Your task to perform on an android device: Find the nearest electronics store that's open today Image 0: 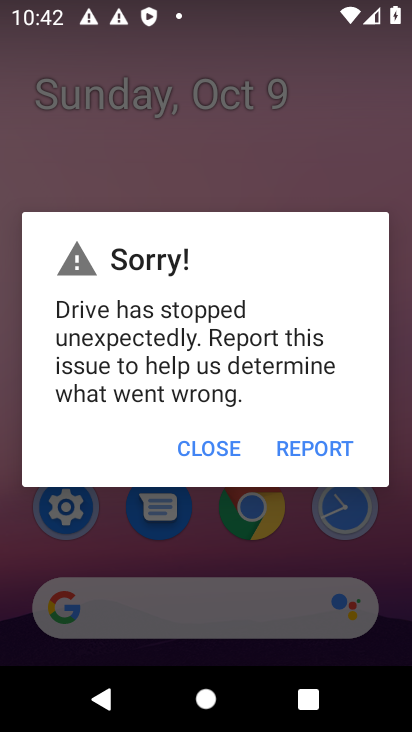
Step 0: click (221, 450)
Your task to perform on an android device: Find the nearest electronics store that's open today Image 1: 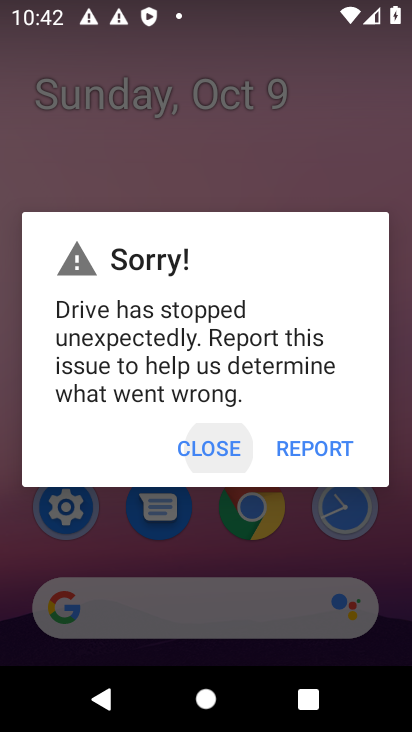
Step 1: press home button
Your task to perform on an android device: Find the nearest electronics store that's open today Image 2: 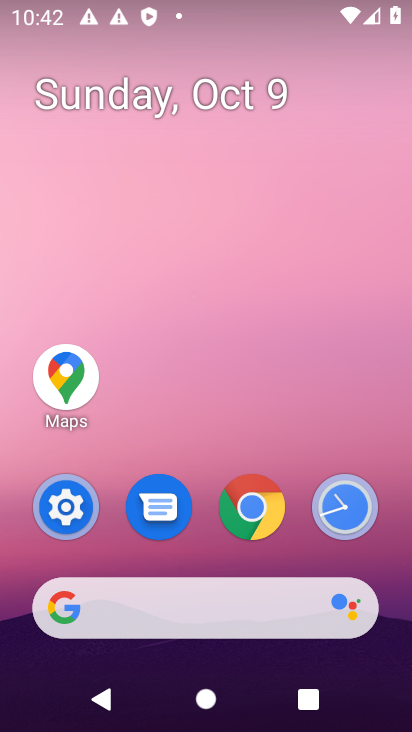
Step 2: click (217, 617)
Your task to perform on an android device: Find the nearest electronics store that's open today Image 3: 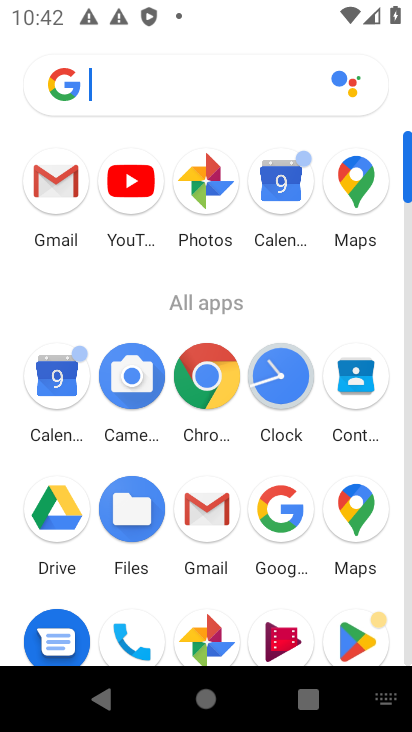
Step 3: click (295, 513)
Your task to perform on an android device: Find the nearest electronics store that's open today Image 4: 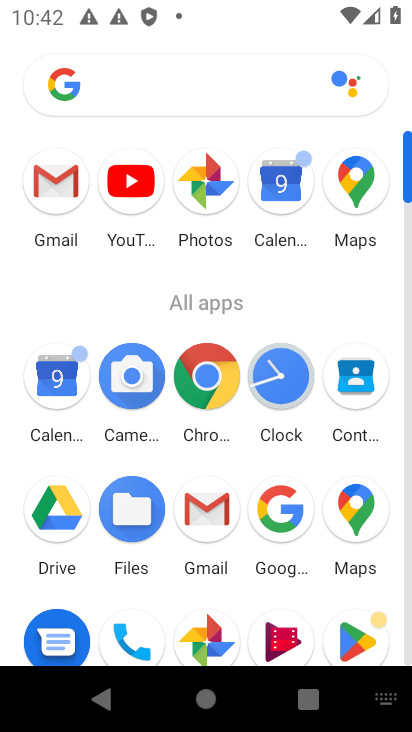
Step 4: click (280, 520)
Your task to perform on an android device: Find the nearest electronics store that's open today Image 5: 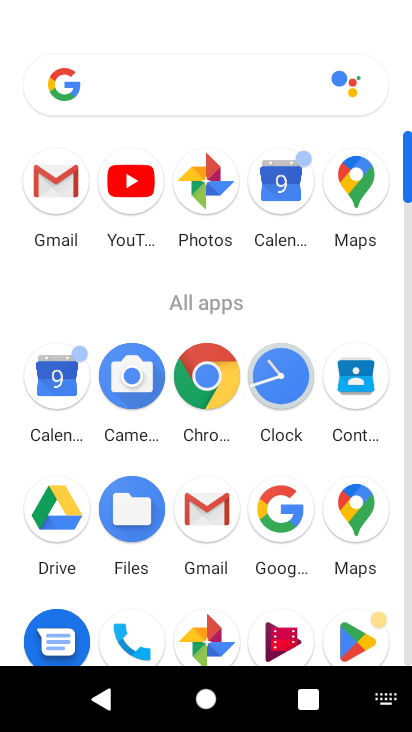
Step 5: click (290, 519)
Your task to perform on an android device: Find the nearest electronics store that's open today Image 6: 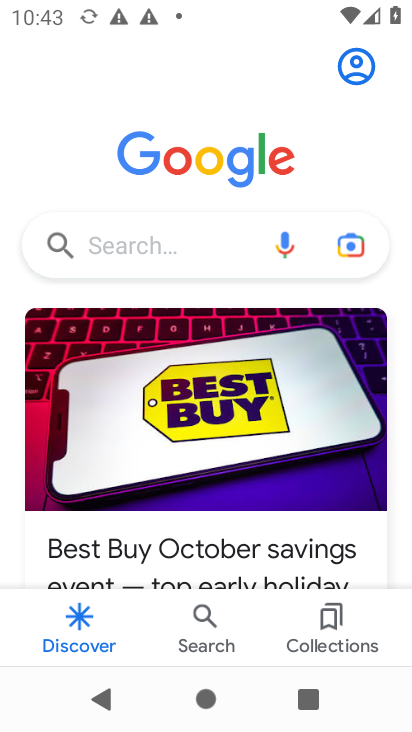
Step 6: click (142, 246)
Your task to perform on an android device: Find the nearest electronics store that's open today Image 7: 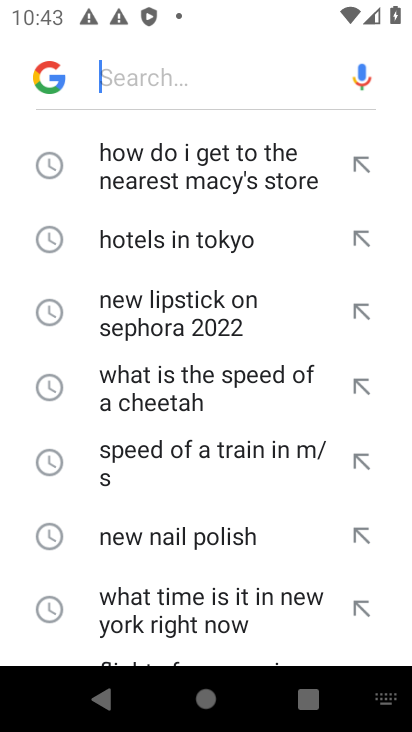
Step 7: press enter
Your task to perform on an android device: Find the nearest electronics store that's open today Image 8: 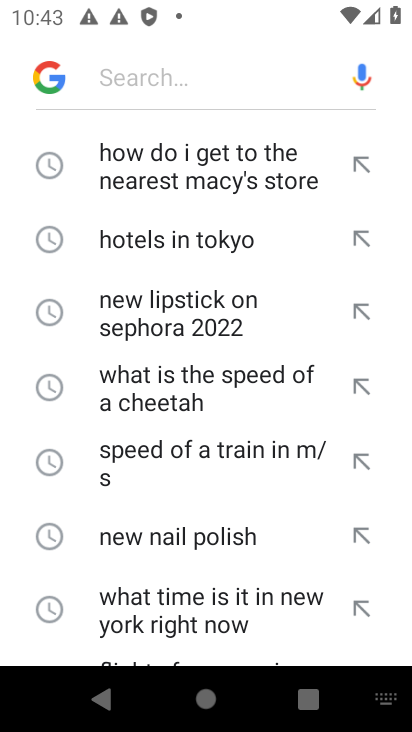
Step 8: type "Find the nearest electronics store that's open today"
Your task to perform on an android device: Find the nearest electronics store that's open today Image 9: 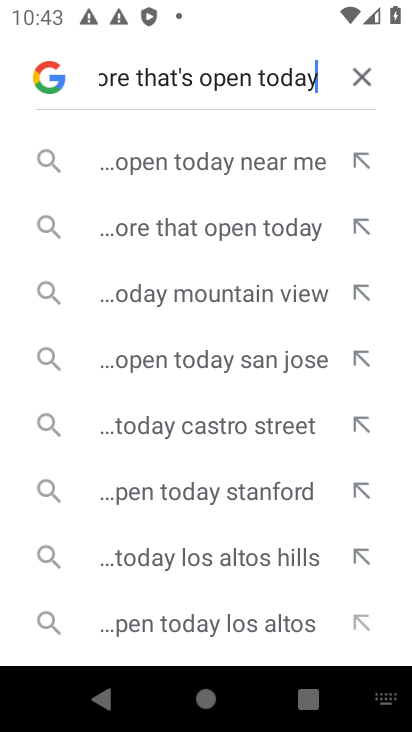
Step 9: press enter
Your task to perform on an android device: Find the nearest electronics store that's open today Image 10: 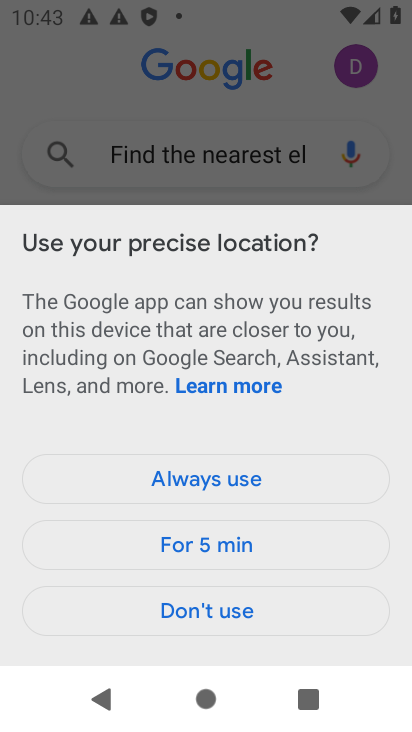
Step 10: click (230, 625)
Your task to perform on an android device: Find the nearest electronics store that's open today Image 11: 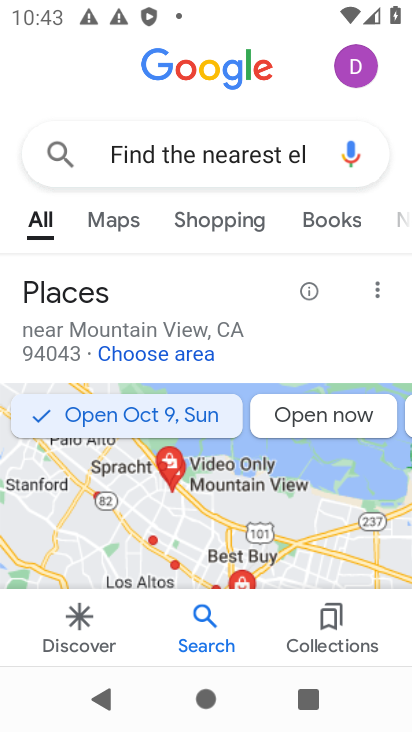
Step 11: task complete